Your task to perform on an android device: empty trash in the gmail app Image 0: 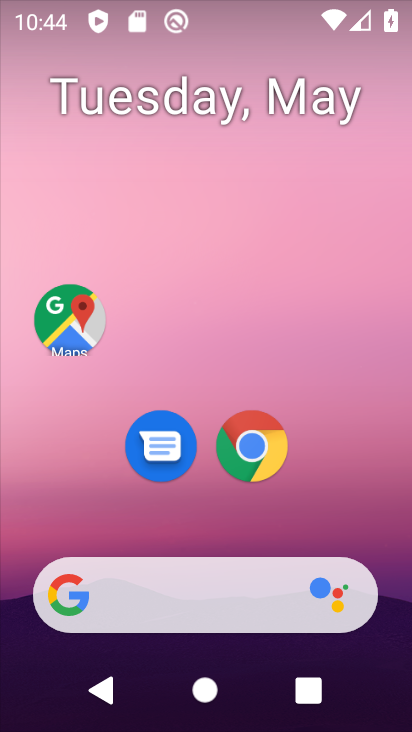
Step 0: drag from (271, 575) to (271, 156)
Your task to perform on an android device: empty trash in the gmail app Image 1: 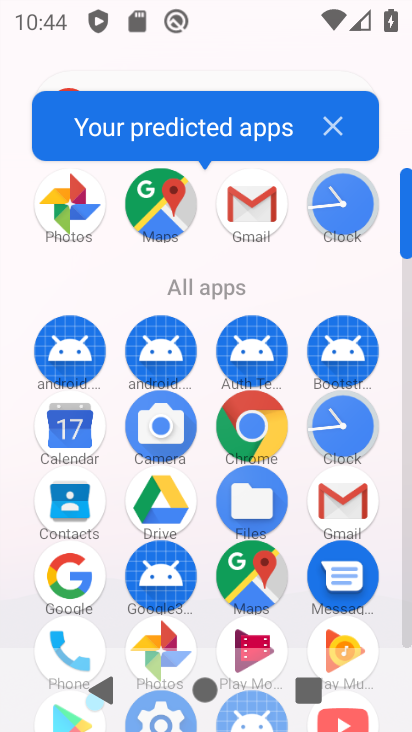
Step 1: drag from (230, 572) to (296, 82)
Your task to perform on an android device: empty trash in the gmail app Image 2: 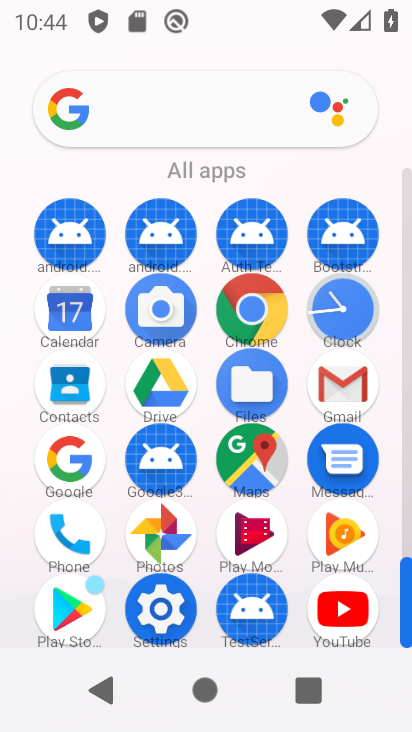
Step 2: click (354, 388)
Your task to perform on an android device: empty trash in the gmail app Image 3: 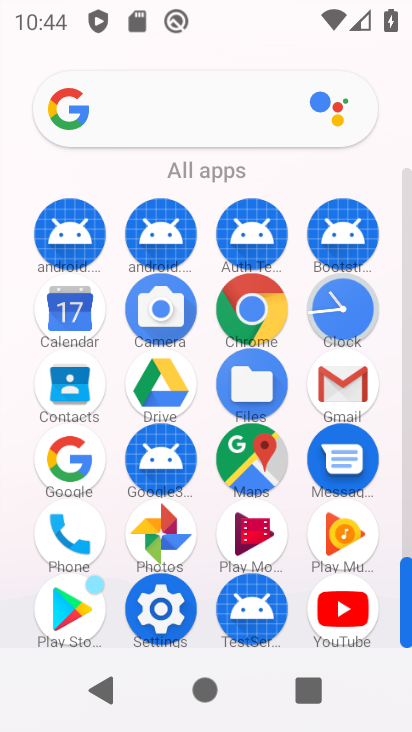
Step 3: click (354, 388)
Your task to perform on an android device: empty trash in the gmail app Image 4: 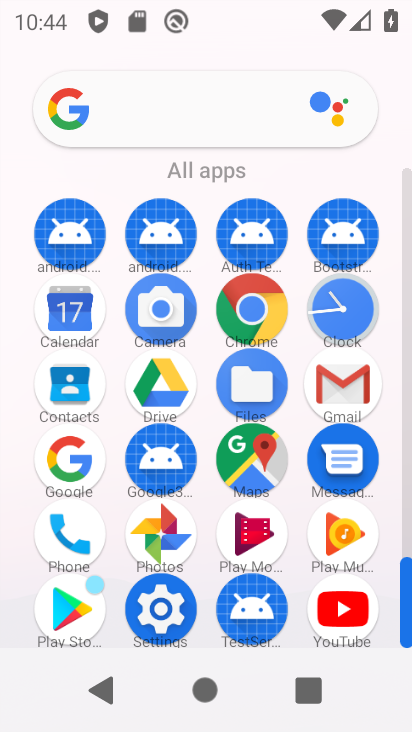
Step 4: click (354, 388)
Your task to perform on an android device: empty trash in the gmail app Image 5: 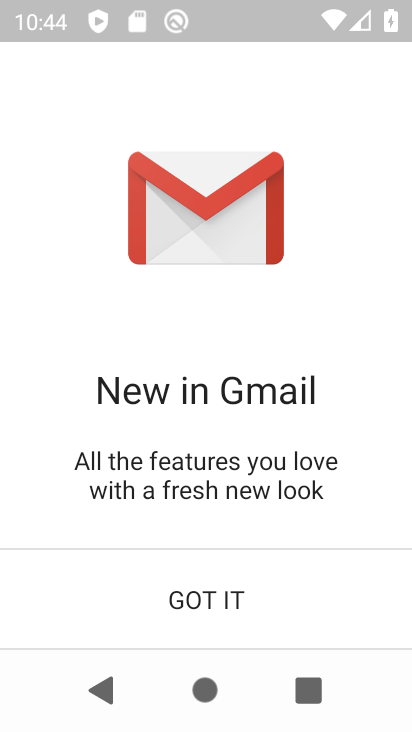
Step 5: click (207, 593)
Your task to perform on an android device: empty trash in the gmail app Image 6: 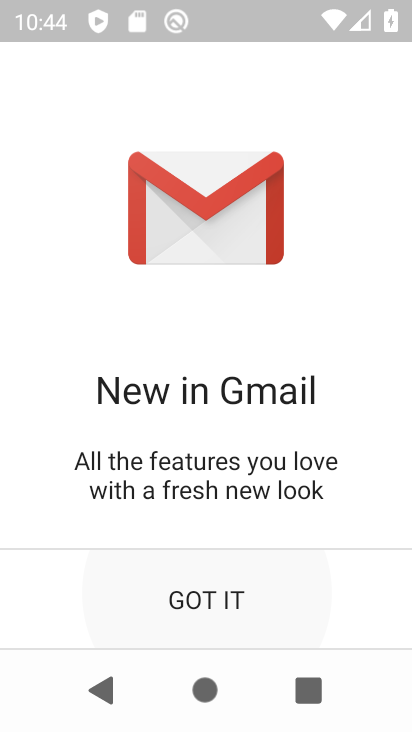
Step 6: click (207, 593)
Your task to perform on an android device: empty trash in the gmail app Image 7: 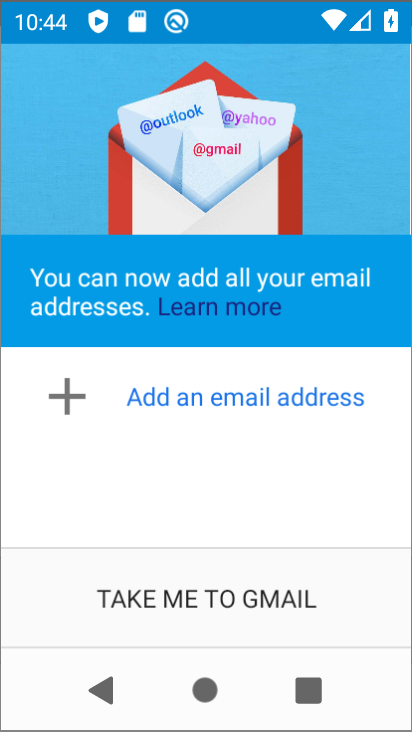
Step 7: click (210, 596)
Your task to perform on an android device: empty trash in the gmail app Image 8: 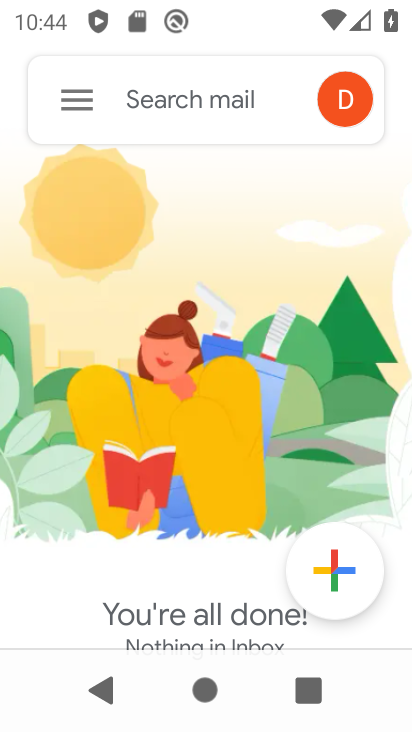
Step 8: click (64, 101)
Your task to perform on an android device: empty trash in the gmail app Image 9: 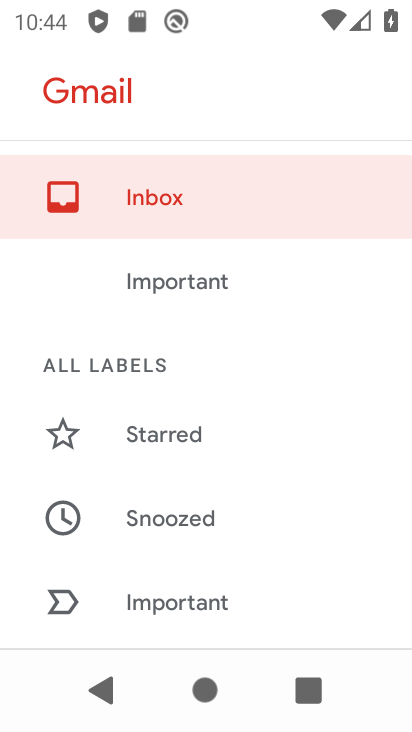
Step 9: drag from (172, 430) to (184, 95)
Your task to perform on an android device: empty trash in the gmail app Image 10: 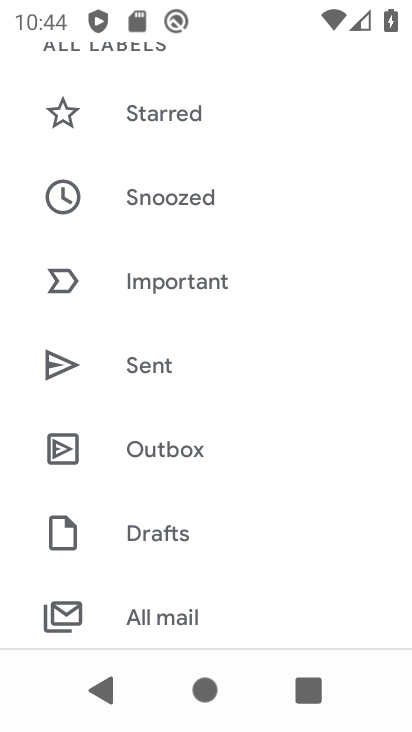
Step 10: drag from (185, 410) to (223, 120)
Your task to perform on an android device: empty trash in the gmail app Image 11: 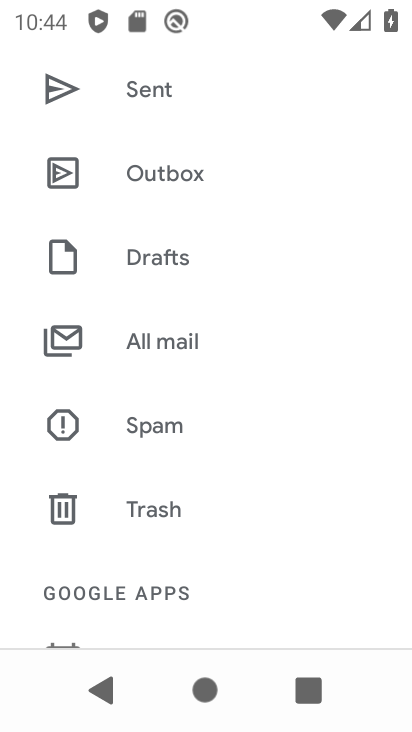
Step 11: click (154, 515)
Your task to perform on an android device: empty trash in the gmail app Image 12: 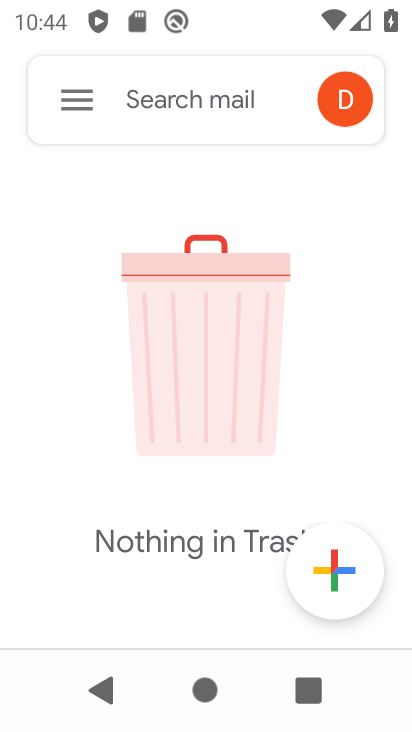
Step 12: task complete